Your task to perform on an android device: Go to Google maps Image 0: 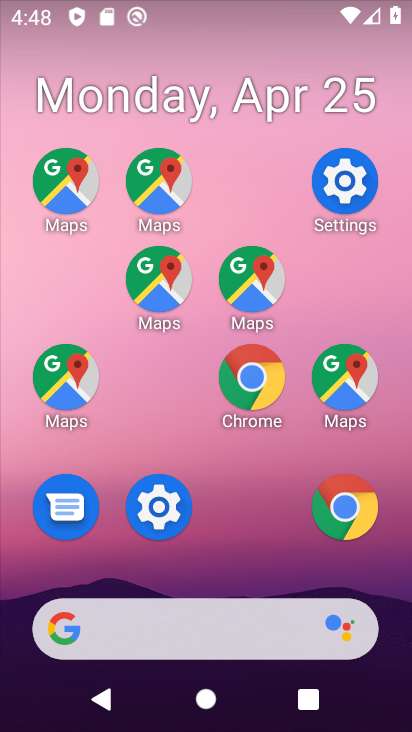
Step 0: drag from (263, 636) to (230, 98)
Your task to perform on an android device: Go to Google maps Image 1: 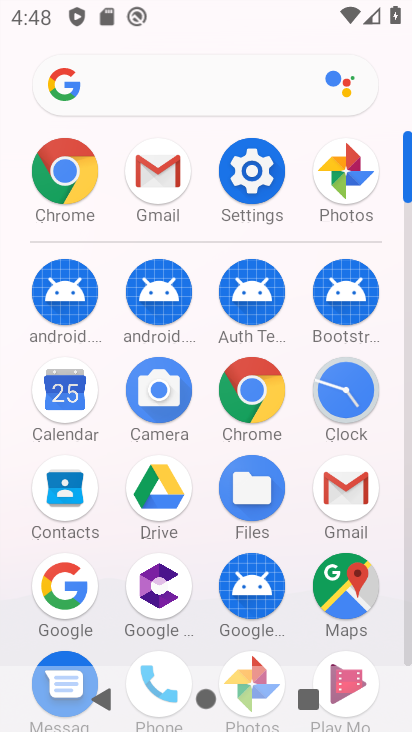
Step 1: click (351, 577)
Your task to perform on an android device: Go to Google maps Image 2: 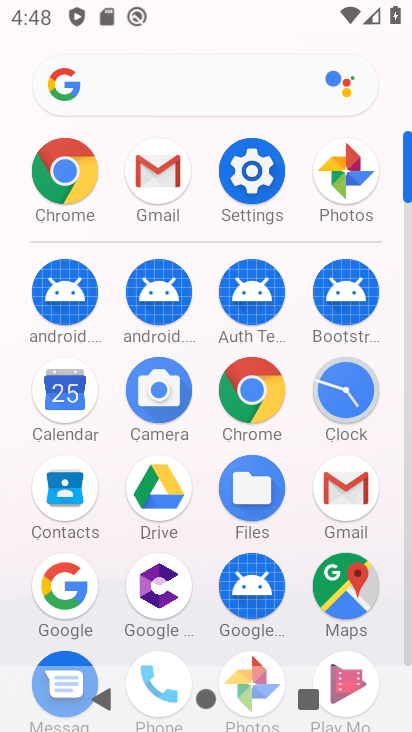
Step 2: click (351, 578)
Your task to perform on an android device: Go to Google maps Image 3: 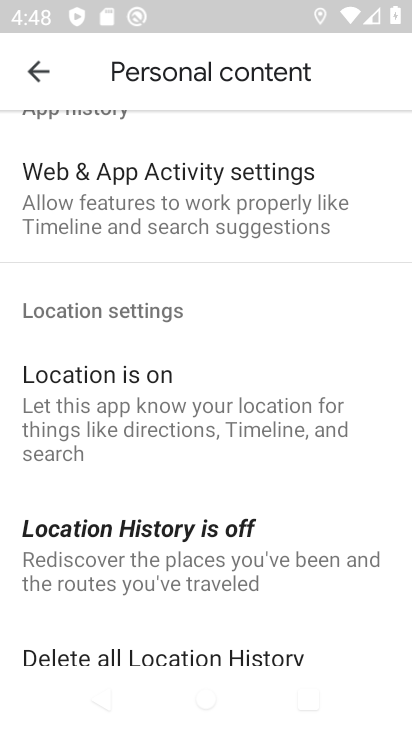
Step 3: click (27, 74)
Your task to perform on an android device: Go to Google maps Image 4: 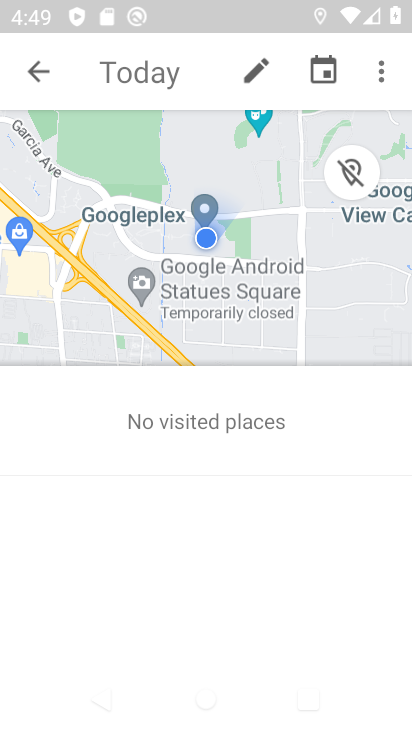
Step 4: task complete